Your task to perform on an android device: visit the assistant section in the google photos Image 0: 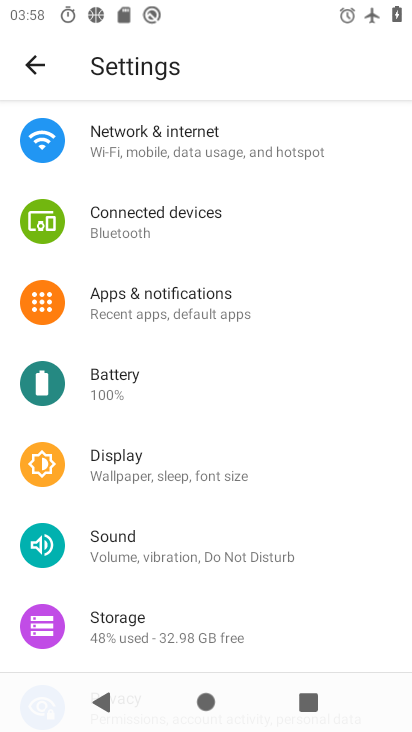
Step 0: press back button
Your task to perform on an android device: visit the assistant section in the google photos Image 1: 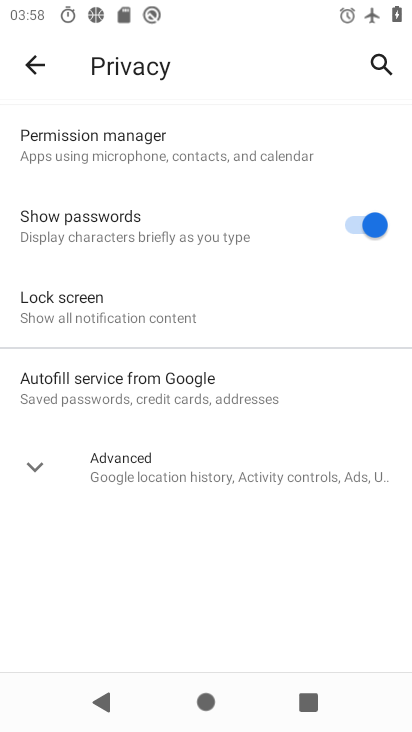
Step 1: press home button
Your task to perform on an android device: visit the assistant section in the google photos Image 2: 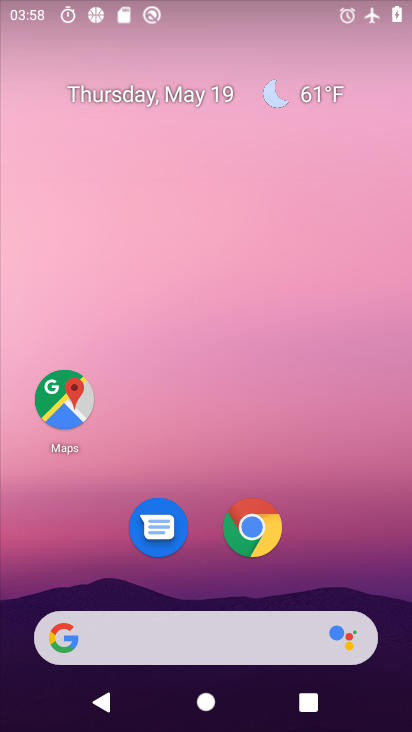
Step 2: drag from (181, 610) to (338, 48)
Your task to perform on an android device: visit the assistant section in the google photos Image 3: 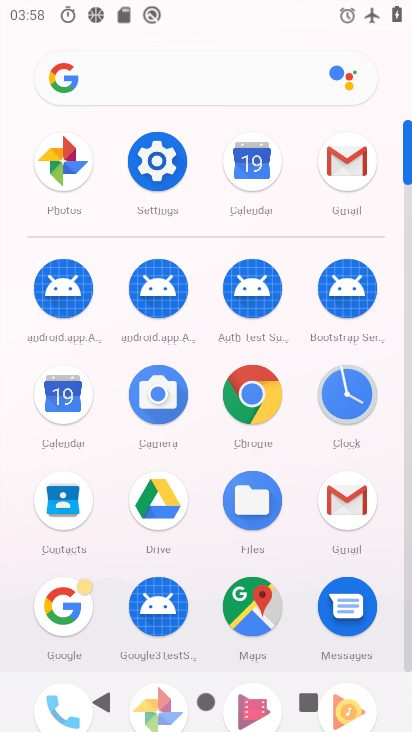
Step 3: drag from (229, 590) to (311, 169)
Your task to perform on an android device: visit the assistant section in the google photos Image 4: 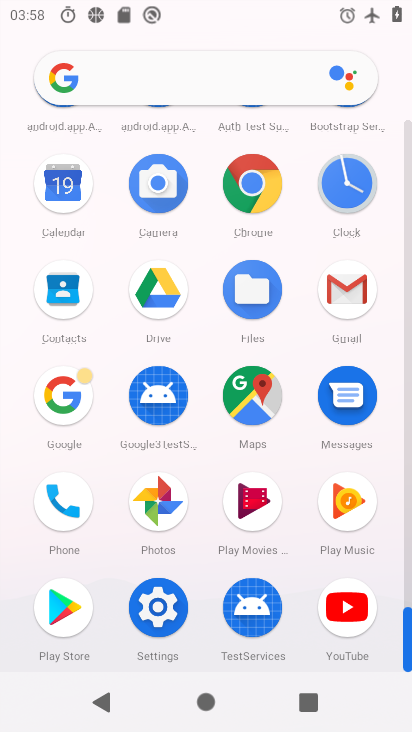
Step 4: click (157, 515)
Your task to perform on an android device: visit the assistant section in the google photos Image 5: 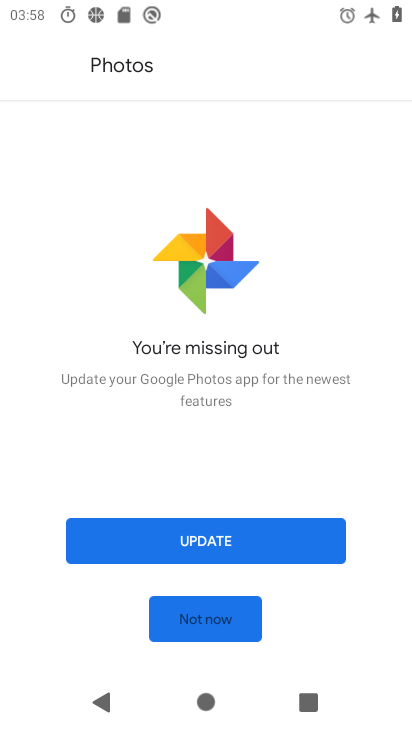
Step 5: click (213, 626)
Your task to perform on an android device: visit the assistant section in the google photos Image 6: 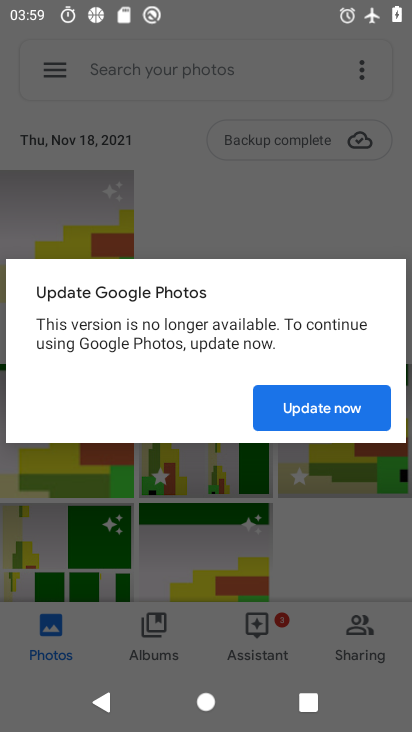
Step 6: click (288, 405)
Your task to perform on an android device: visit the assistant section in the google photos Image 7: 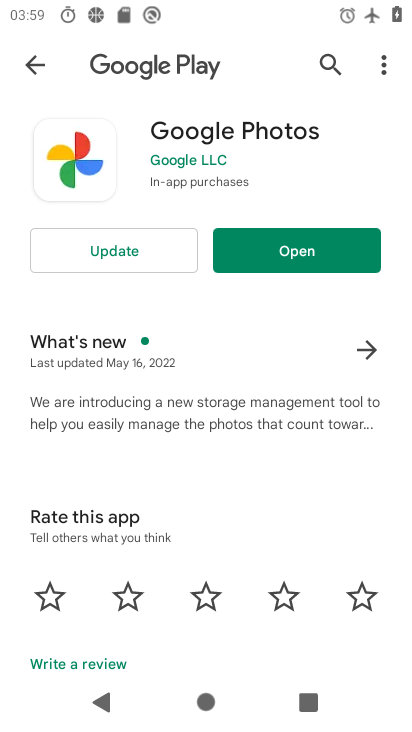
Step 7: click (322, 255)
Your task to perform on an android device: visit the assistant section in the google photos Image 8: 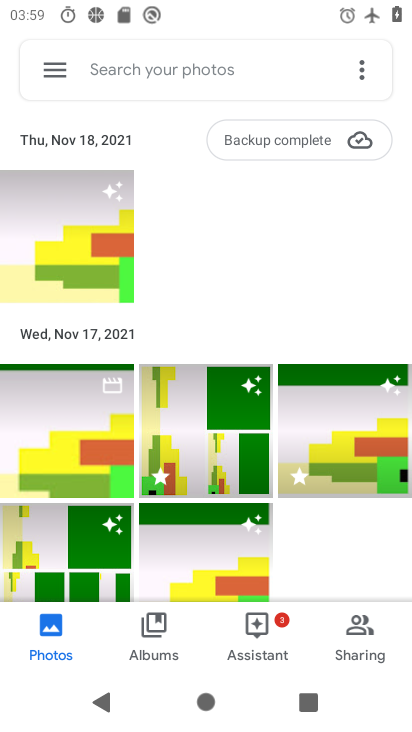
Step 8: click (264, 645)
Your task to perform on an android device: visit the assistant section in the google photos Image 9: 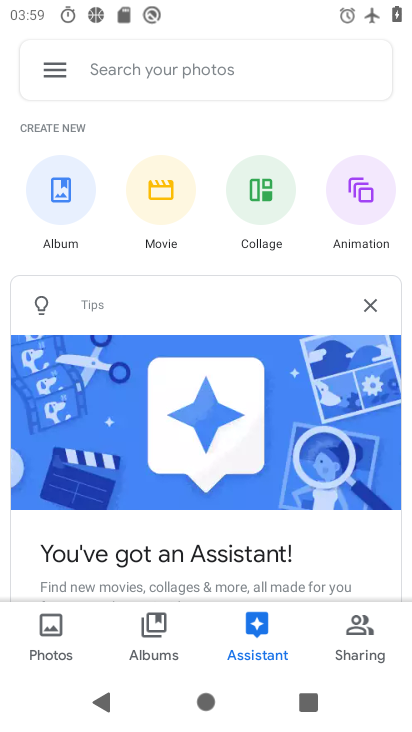
Step 9: task complete